Your task to perform on an android device: check out phone information Image 0: 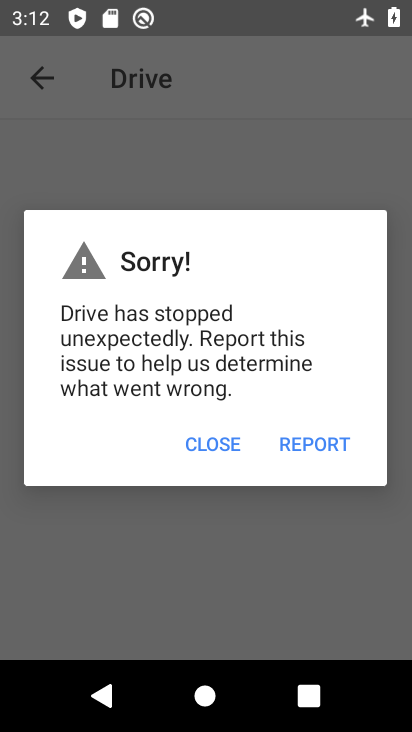
Step 0: press home button
Your task to perform on an android device: check out phone information Image 1: 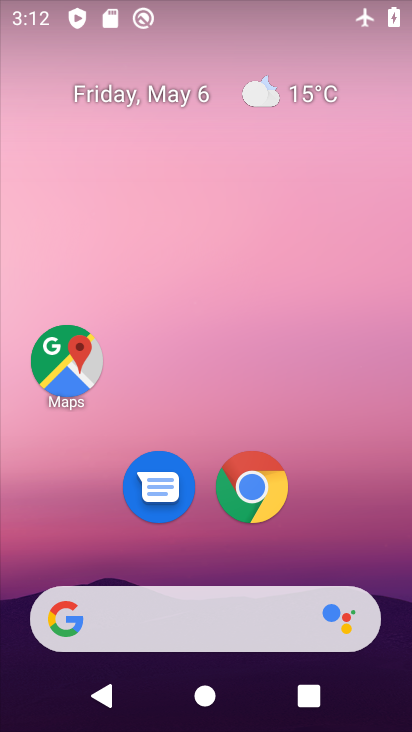
Step 1: drag from (156, 579) to (273, 24)
Your task to perform on an android device: check out phone information Image 2: 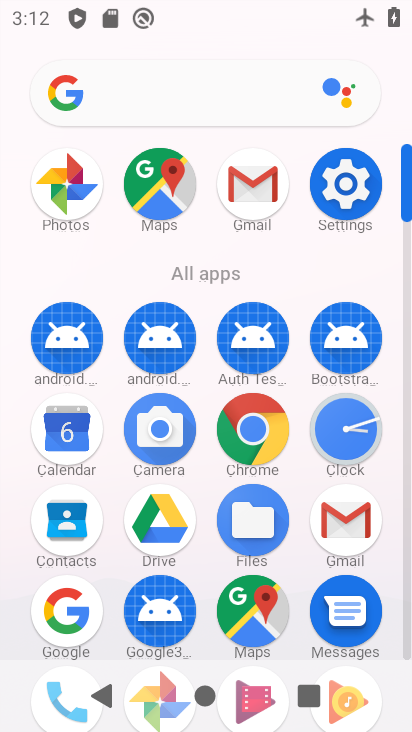
Step 2: drag from (170, 637) to (231, 345)
Your task to perform on an android device: check out phone information Image 3: 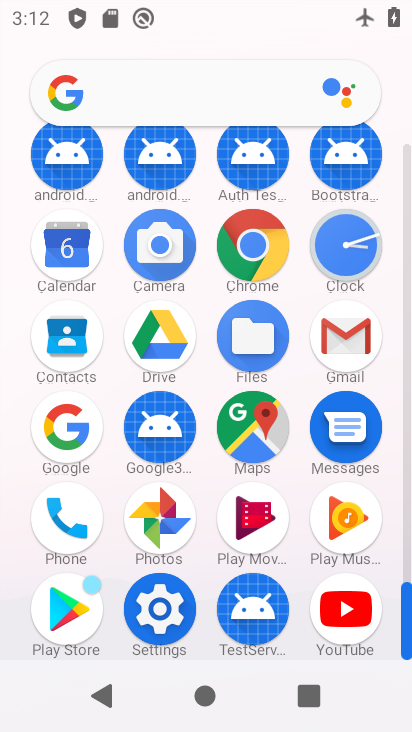
Step 3: click (155, 603)
Your task to perform on an android device: check out phone information Image 4: 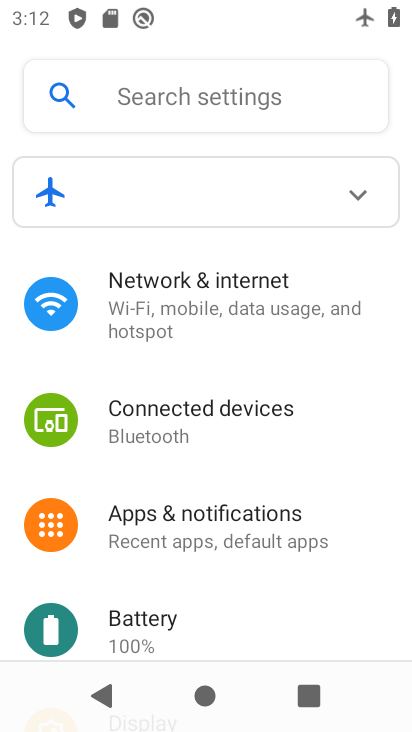
Step 4: drag from (167, 634) to (294, 177)
Your task to perform on an android device: check out phone information Image 5: 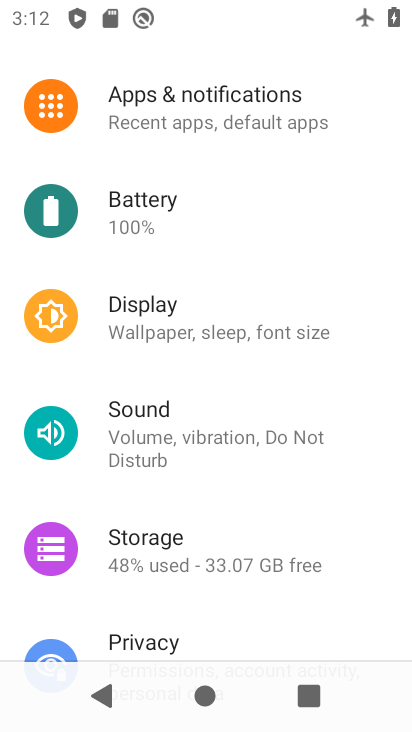
Step 5: drag from (189, 531) to (276, 115)
Your task to perform on an android device: check out phone information Image 6: 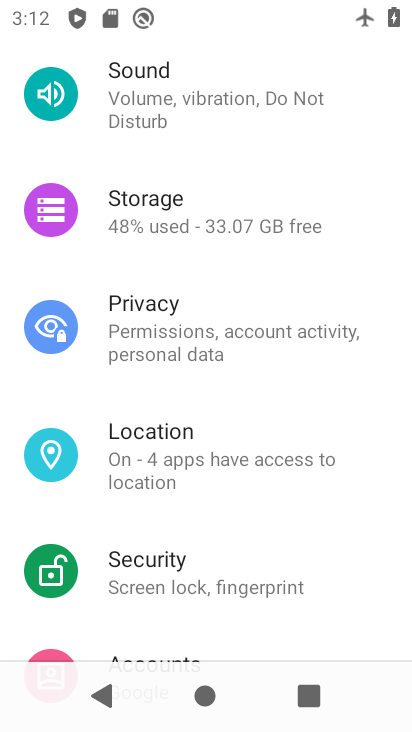
Step 6: drag from (190, 599) to (296, 126)
Your task to perform on an android device: check out phone information Image 7: 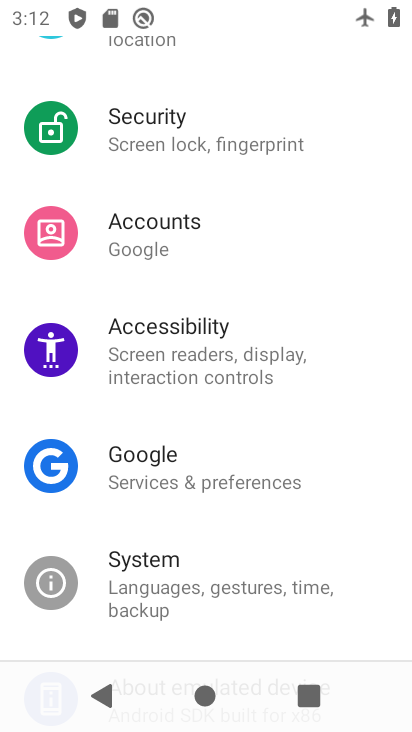
Step 7: drag from (181, 586) to (254, 212)
Your task to perform on an android device: check out phone information Image 8: 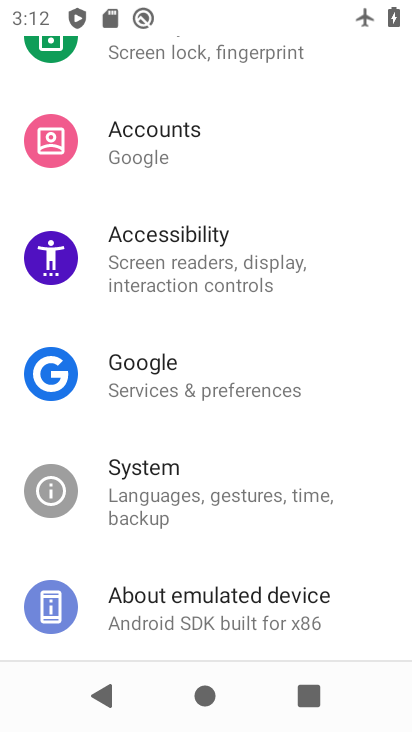
Step 8: click (219, 619)
Your task to perform on an android device: check out phone information Image 9: 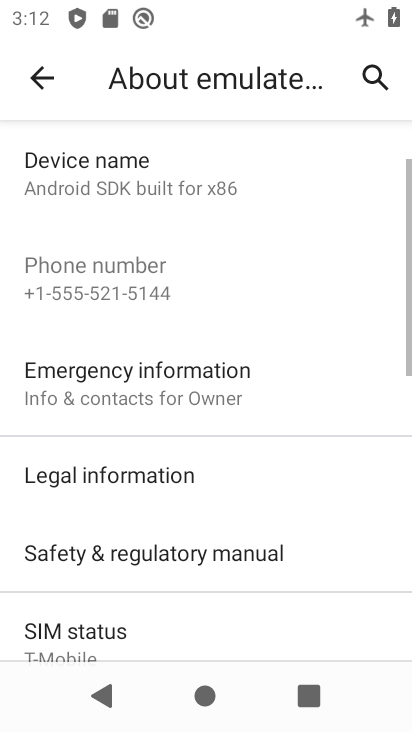
Step 9: task complete